Your task to perform on an android device: Is it going to rain this weekend? Image 0: 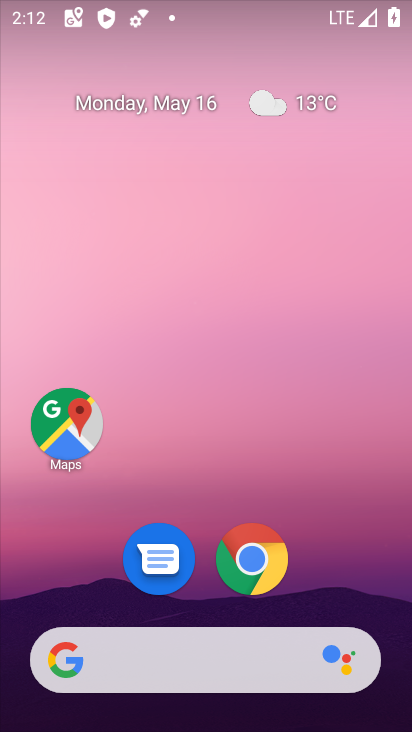
Step 0: click (286, 108)
Your task to perform on an android device: Is it going to rain this weekend? Image 1: 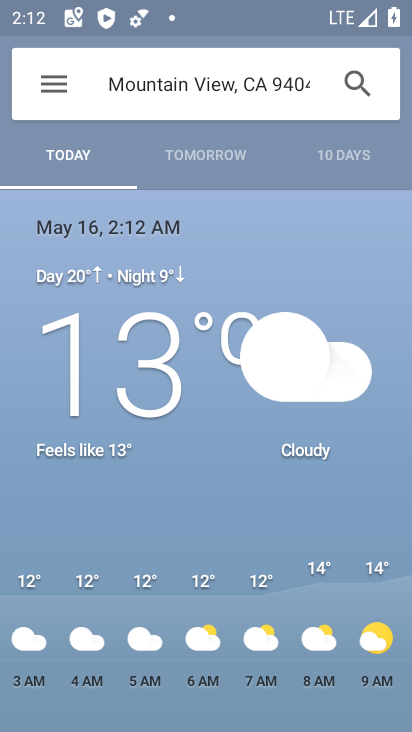
Step 1: click (337, 120)
Your task to perform on an android device: Is it going to rain this weekend? Image 2: 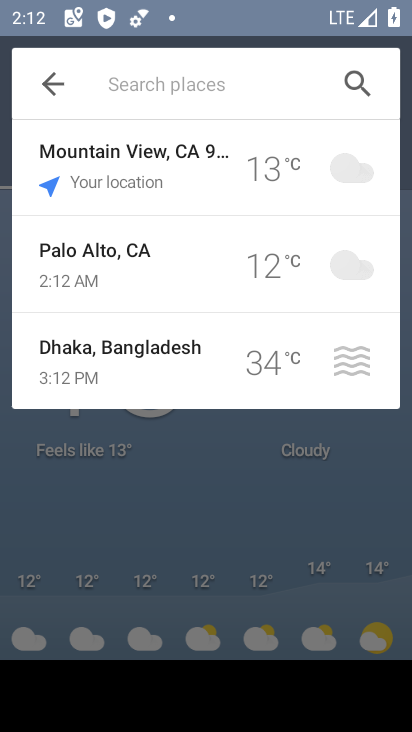
Step 2: click (35, 74)
Your task to perform on an android device: Is it going to rain this weekend? Image 3: 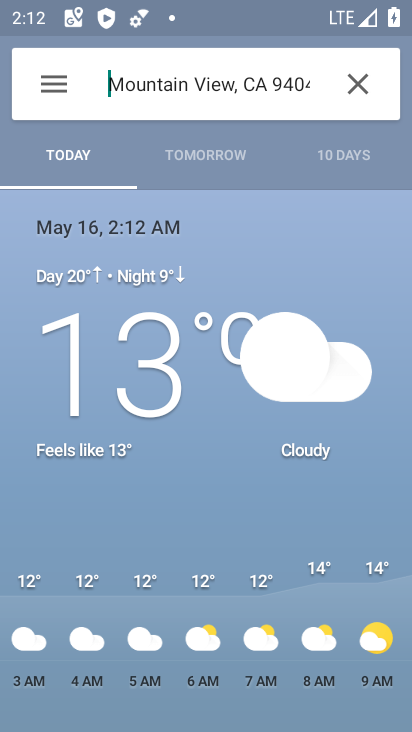
Step 3: click (372, 160)
Your task to perform on an android device: Is it going to rain this weekend? Image 4: 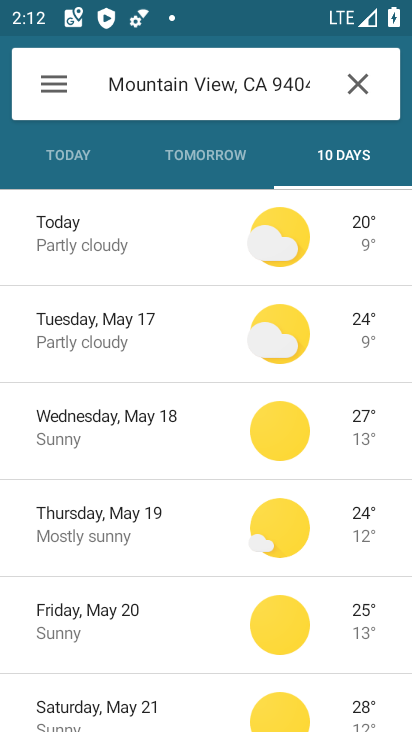
Step 4: task complete